Your task to perform on an android device: What's the news in Cambodia? Image 0: 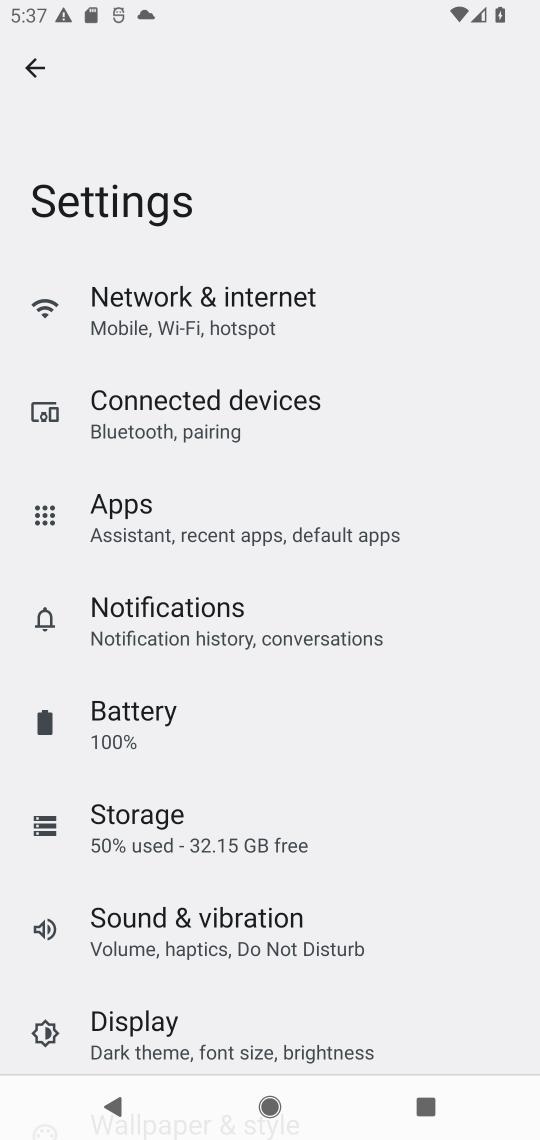
Step 0: press home button
Your task to perform on an android device: What's the news in Cambodia? Image 1: 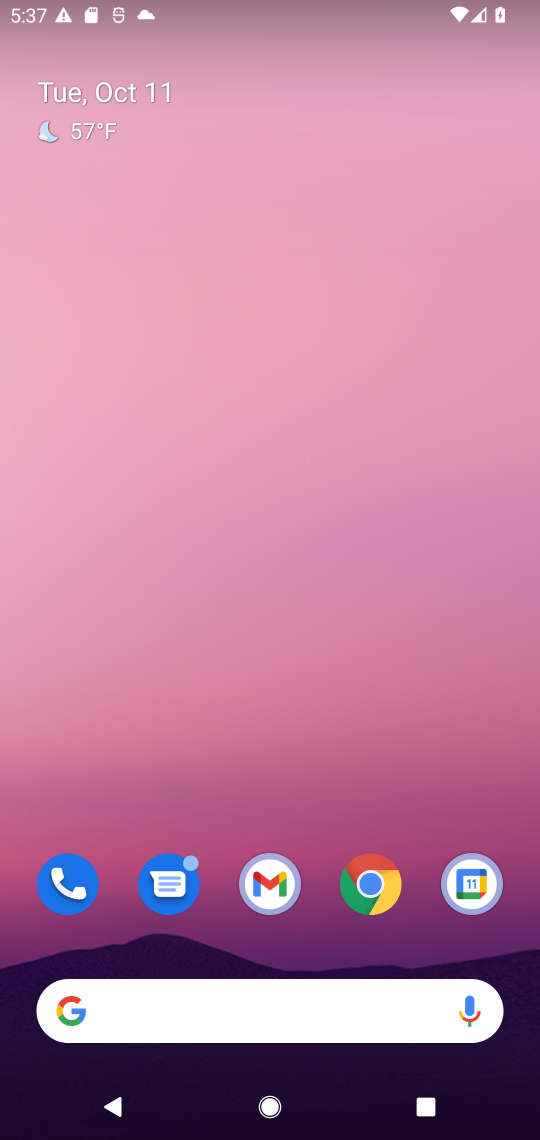
Step 1: drag from (313, 968) to (390, 20)
Your task to perform on an android device: What's the news in Cambodia? Image 2: 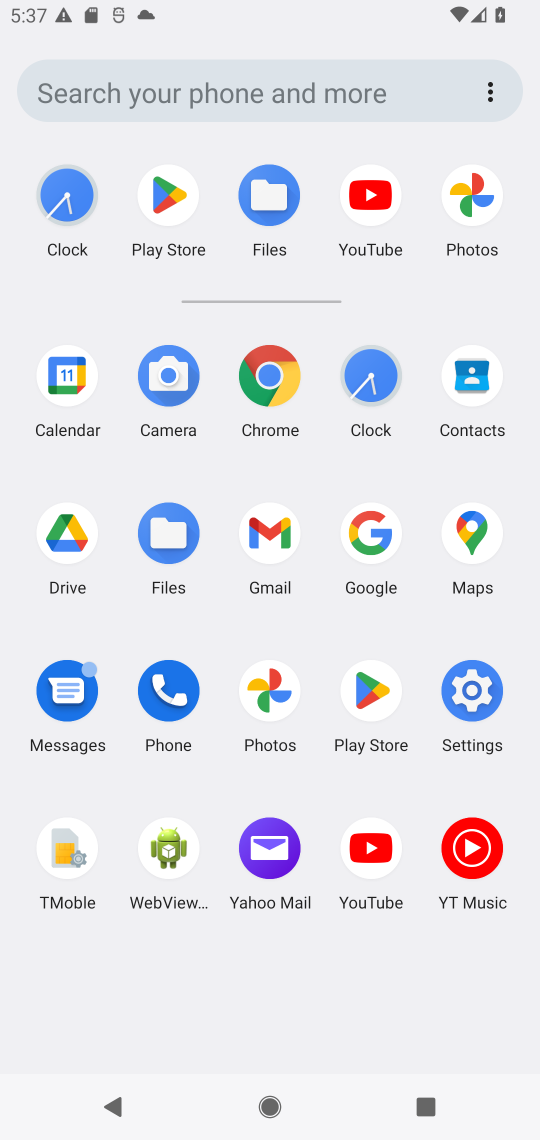
Step 2: click (380, 528)
Your task to perform on an android device: What's the news in Cambodia? Image 3: 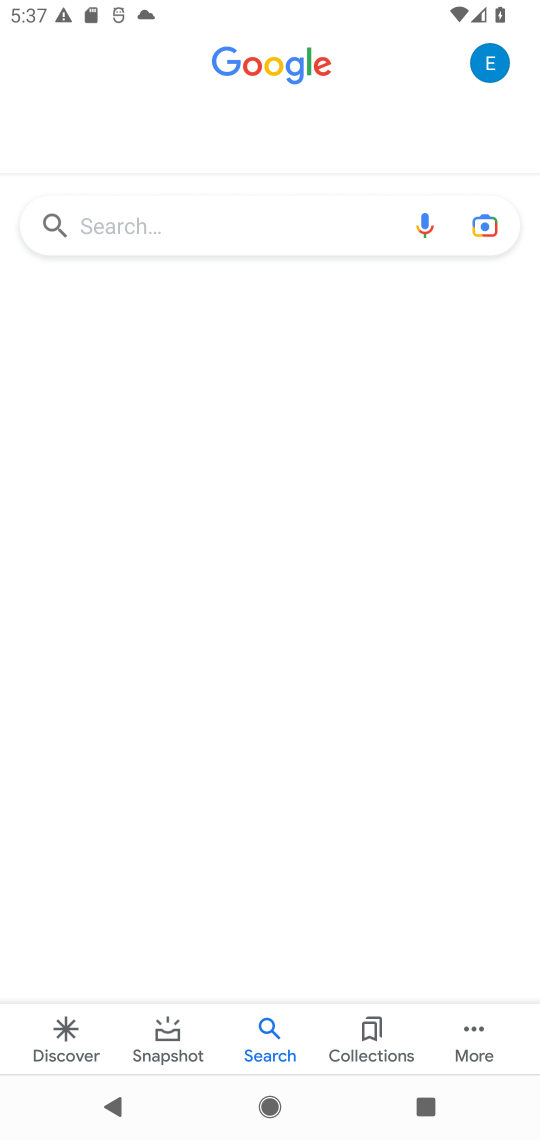
Step 3: click (176, 238)
Your task to perform on an android device: What's the news in Cambodia? Image 4: 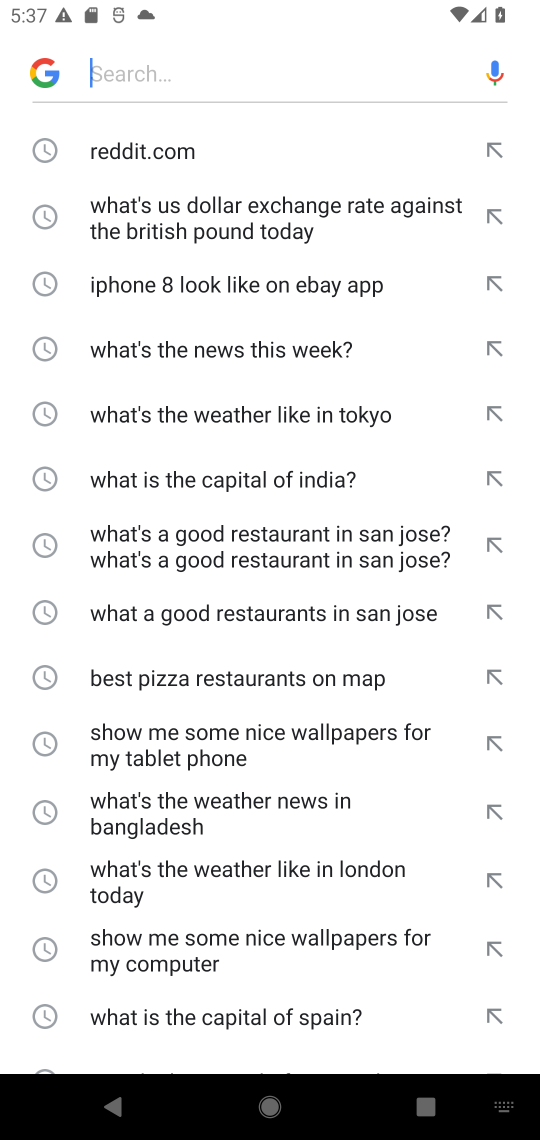
Step 4: type "What's the news in Cambodia?"
Your task to perform on an android device: What's the news in Cambodia? Image 5: 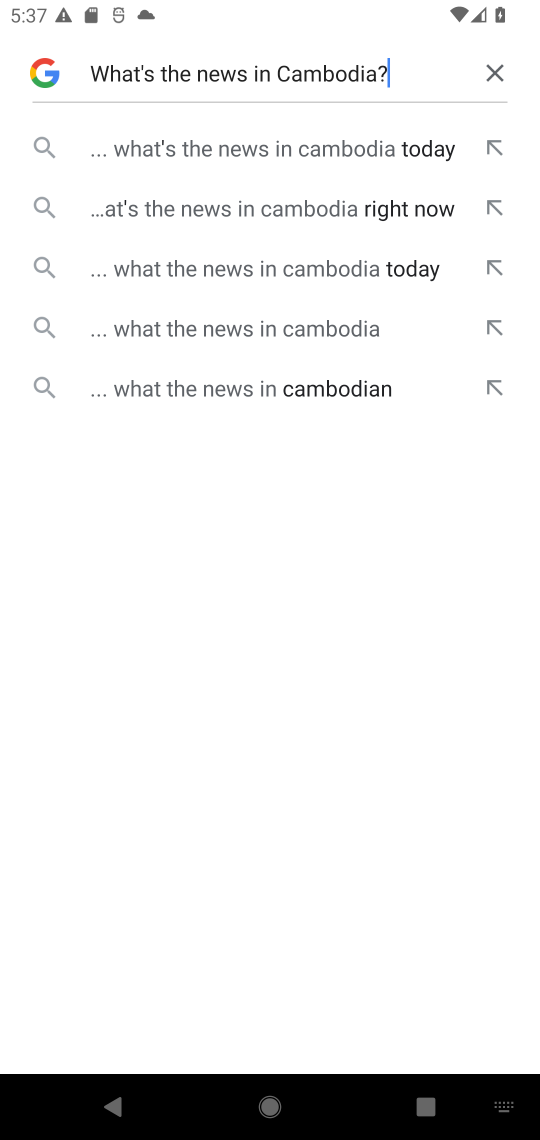
Step 5: click (272, 143)
Your task to perform on an android device: What's the news in Cambodia? Image 6: 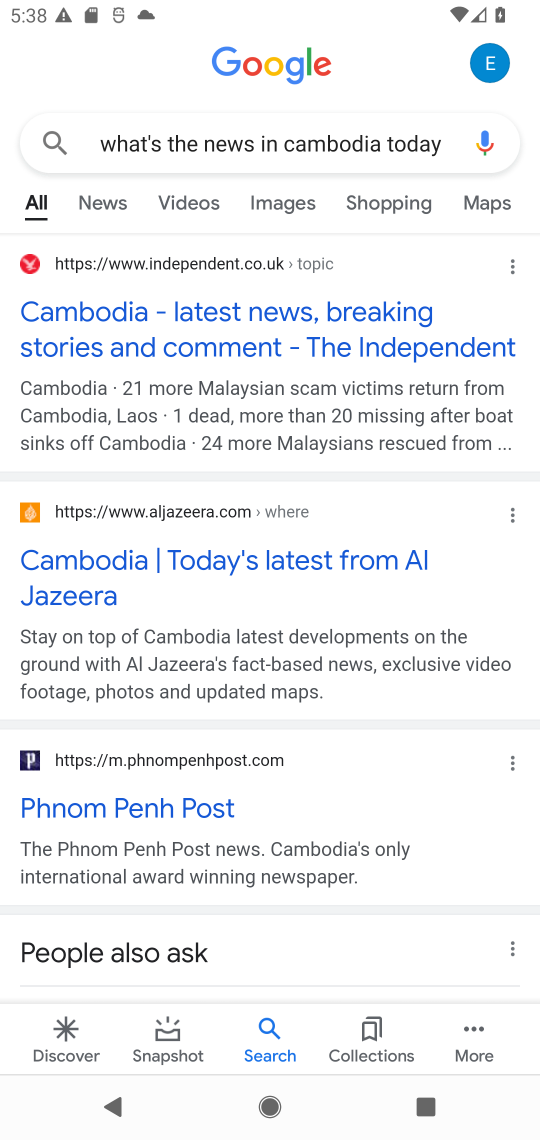
Step 6: click (107, 198)
Your task to perform on an android device: What's the news in Cambodia? Image 7: 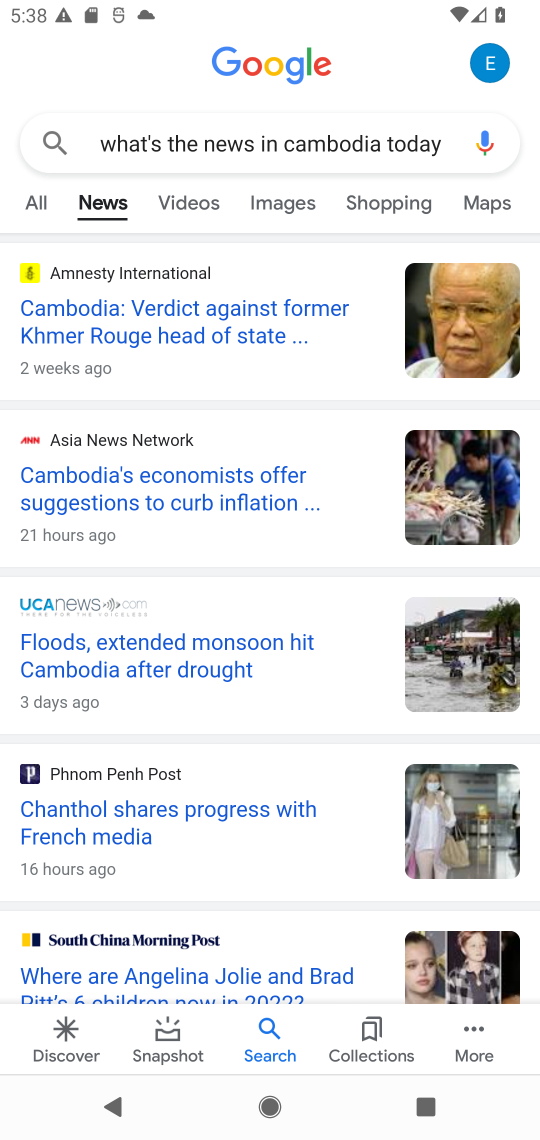
Step 7: task complete